Your task to perform on an android device: Is it going to rain tomorrow? Image 0: 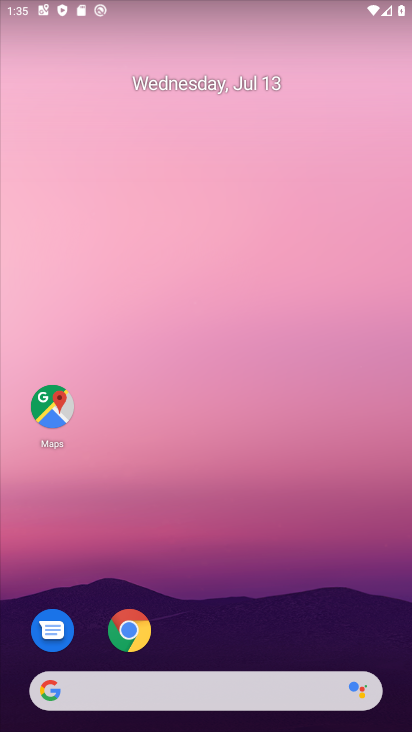
Step 0: click (234, 686)
Your task to perform on an android device: Is it going to rain tomorrow? Image 1: 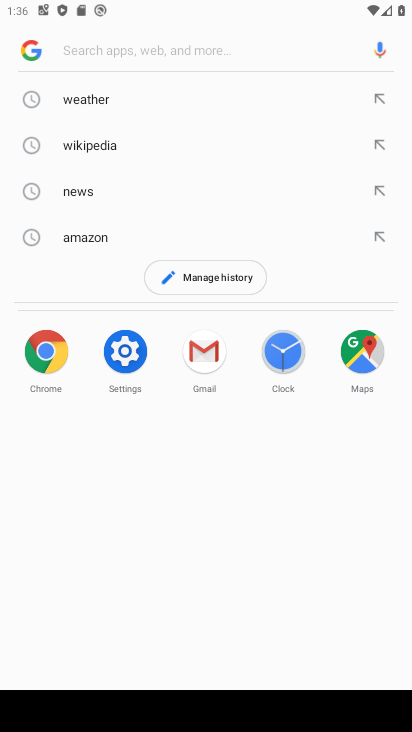
Step 1: click (108, 100)
Your task to perform on an android device: Is it going to rain tomorrow? Image 2: 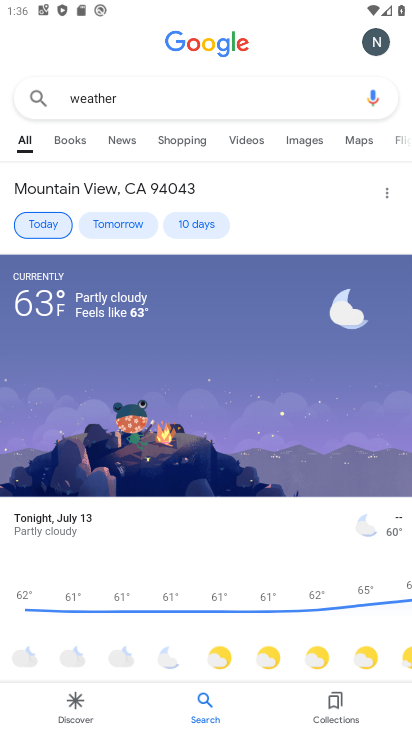
Step 2: click (129, 225)
Your task to perform on an android device: Is it going to rain tomorrow? Image 3: 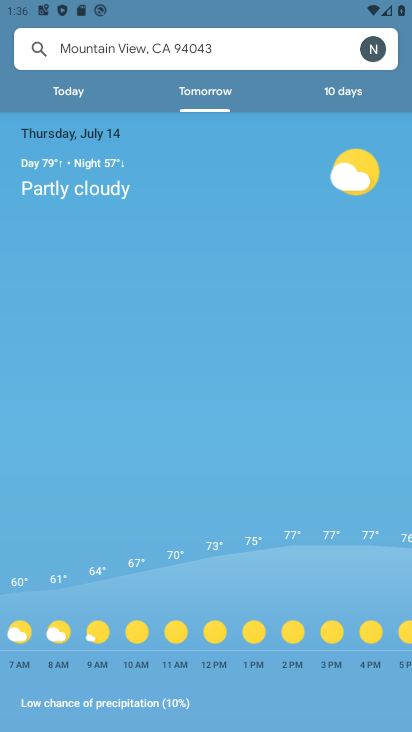
Step 3: task complete